Your task to perform on an android device: Do I have any events tomorrow? Image 0: 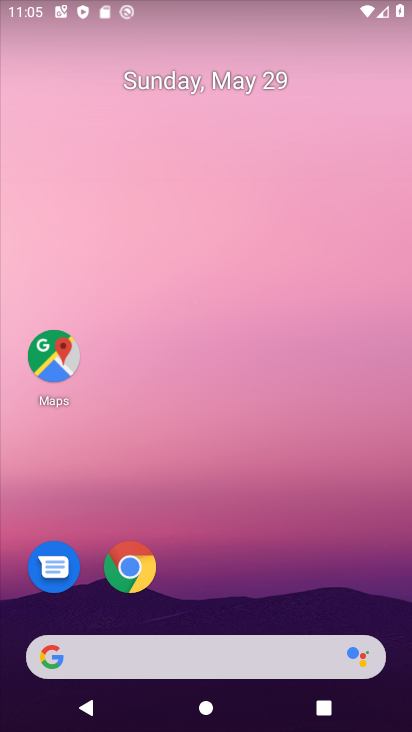
Step 0: drag from (246, 627) to (331, 23)
Your task to perform on an android device: Do I have any events tomorrow? Image 1: 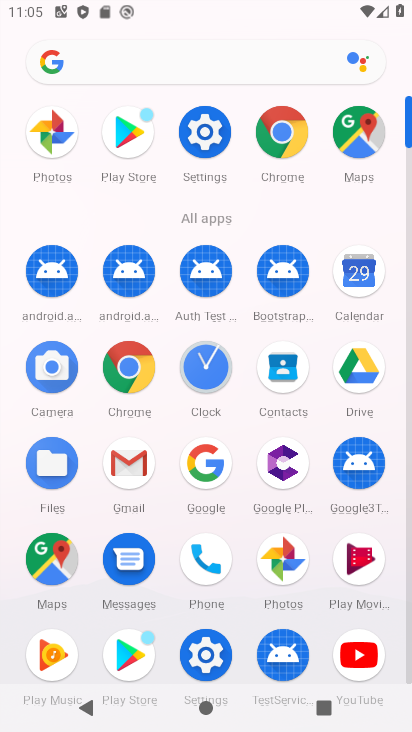
Step 1: click (348, 278)
Your task to perform on an android device: Do I have any events tomorrow? Image 2: 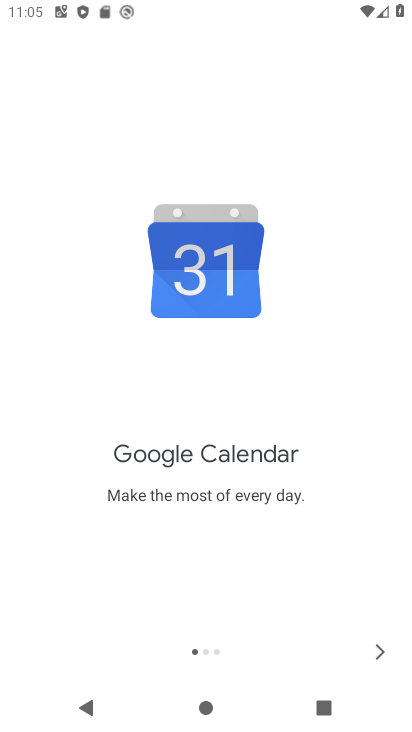
Step 2: click (378, 656)
Your task to perform on an android device: Do I have any events tomorrow? Image 3: 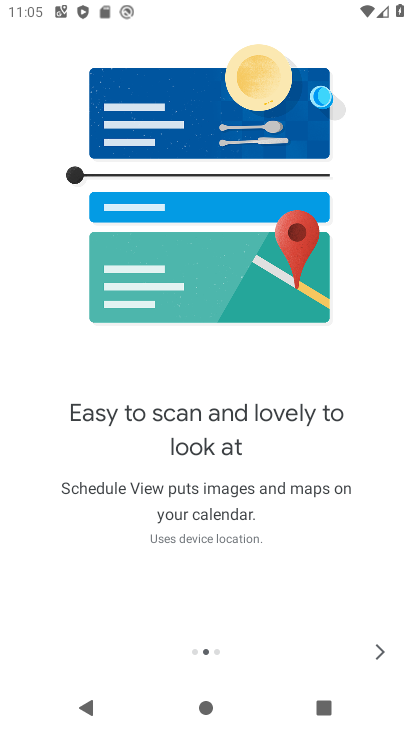
Step 3: click (378, 656)
Your task to perform on an android device: Do I have any events tomorrow? Image 4: 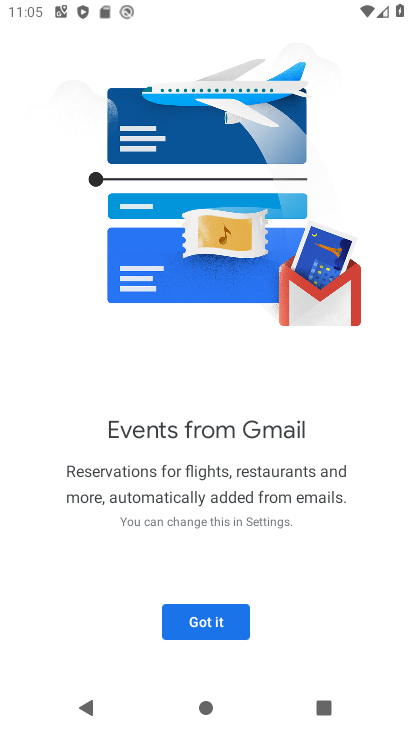
Step 4: click (228, 627)
Your task to perform on an android device: Do I have any events tomorrow? Image 5: 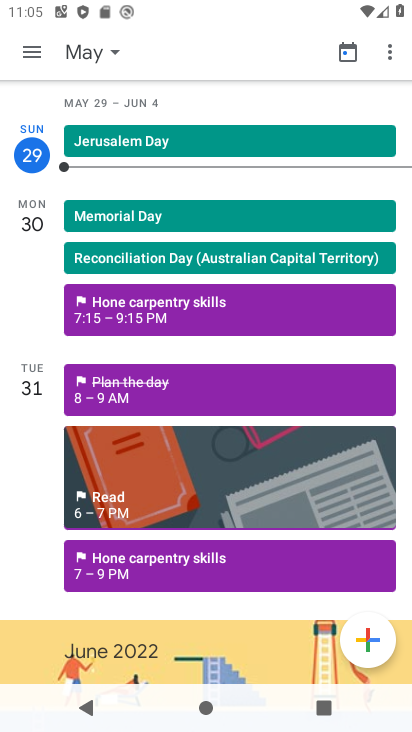
Step 5: click (7, 201)
Your task to perform on an android device: Do I have any events tomorrow? Image 6: 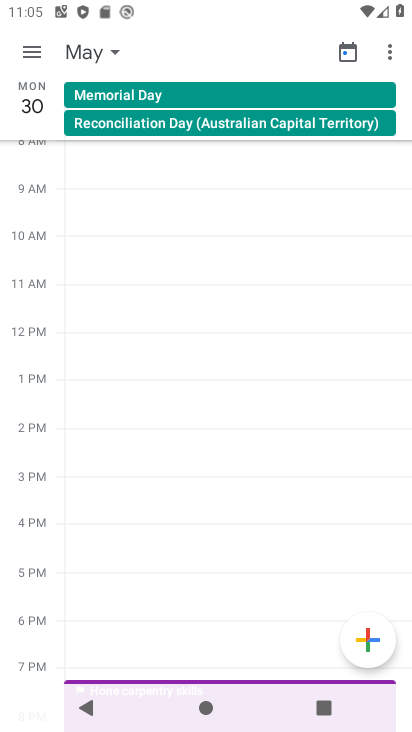
Step 6: task complete